Your task to perform on an android device: turn notification dots on Image 0: 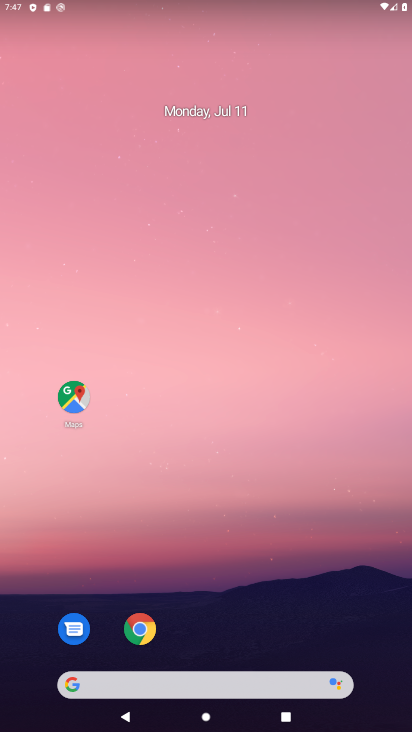
Step 0: drag from (208, 649) to (172, 90)
Your task to perform on an android device: turn notification dots on Image 1: 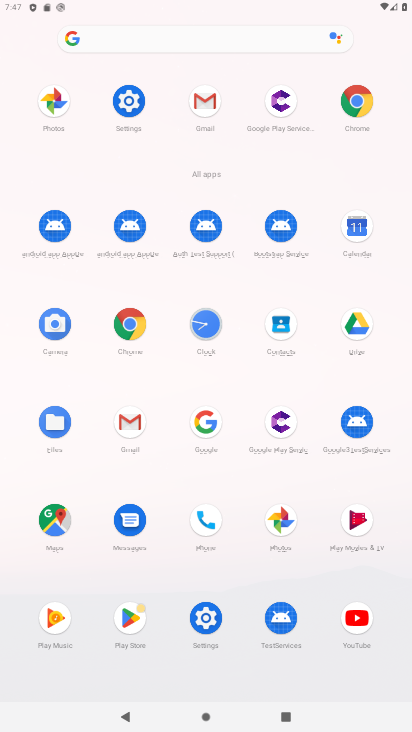
Step 1: click (115, 99)
Your task to perform on an android device: turn notification dots on Image 2: 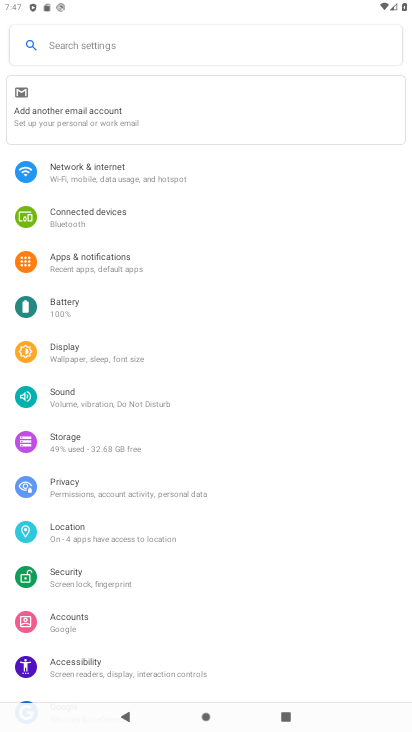
Step 2: click (102, 259)
Your task to perform on an android device: turn notification dots on Image 3: 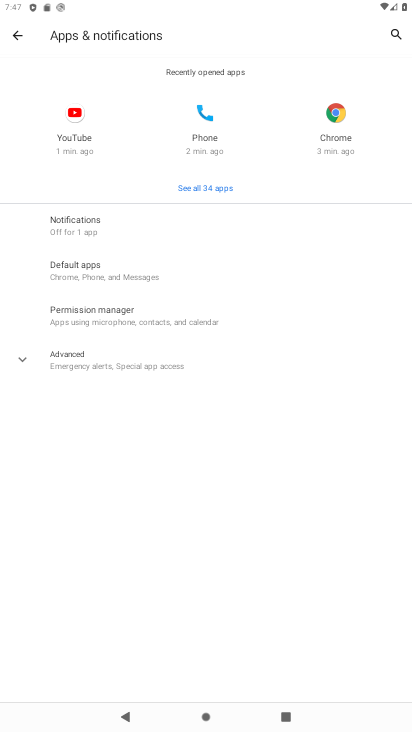
Step 3: click (95, 233)
Your task to perform on an android device: turn notification dots on Image 4: 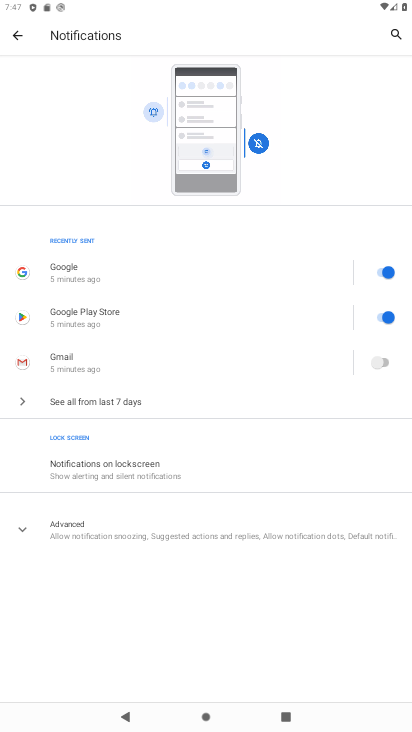
Step 4: click (63, 514)
Your task to perform on an android device: turn notification dots on Image 5: 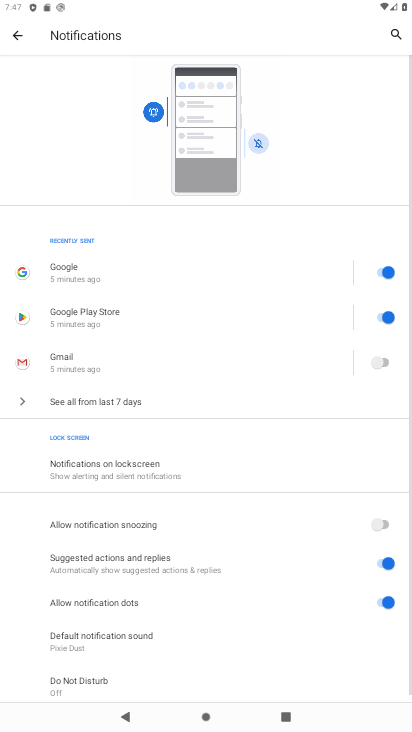
Step 5: task complete